Your task to perform on an android device: check data usage Image 0: 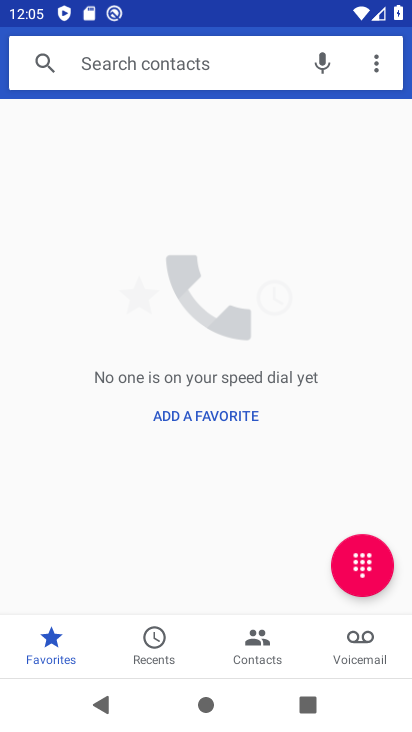
Step 0: press home button
Your task to perform on an android device: check data usage Image 1: 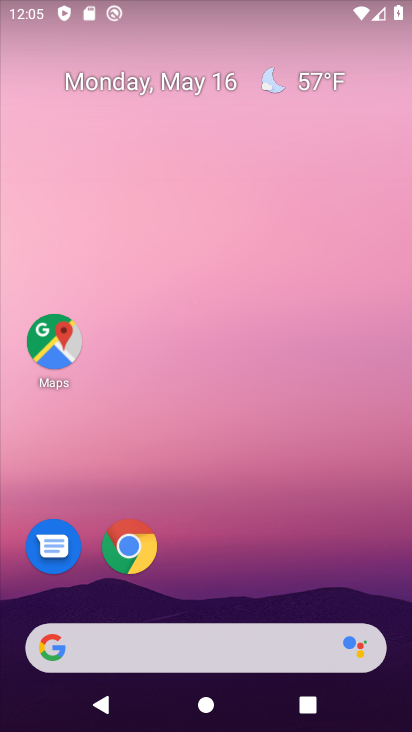
Step 1: drag from (272, 458) to (272, 129)
Your task to perform on an android device: check data usage Image 2: 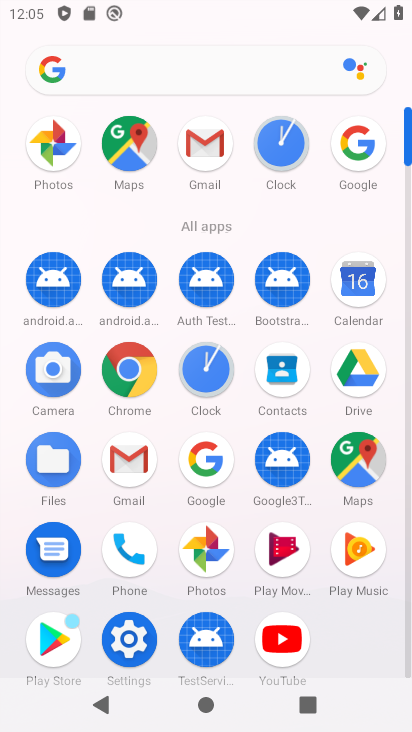
Step 2: click (146, 632)
Your task to perform on an android device: check data usage Image 3: 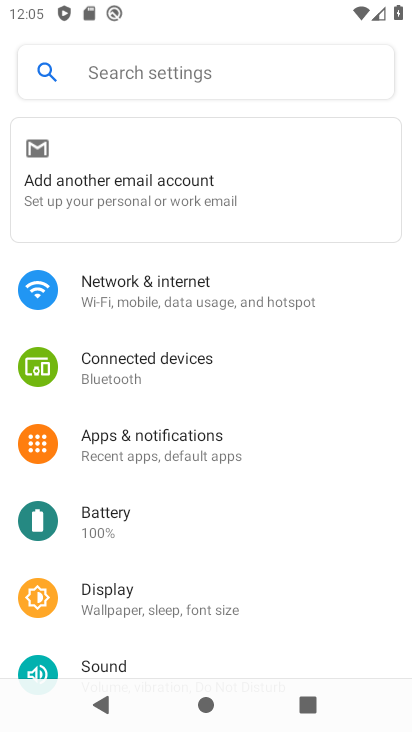
Step 3: click (190, 295)
Your task to perform on an android device: check data usage Image 4: 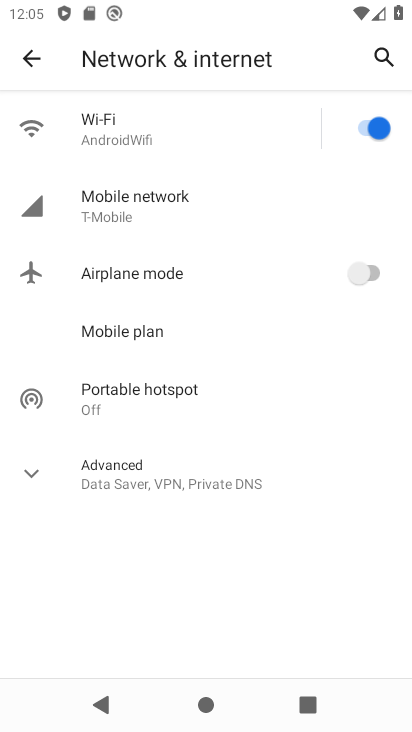
Step 4: click (207, 214)
Your task to perform on an android device: check data usage Image 5: 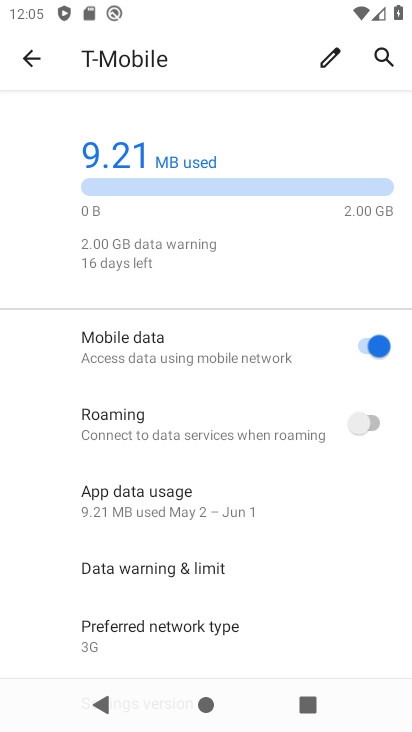
Step 5: click (204, 513)
Your task to perform on an android device: check data usage Image 6: 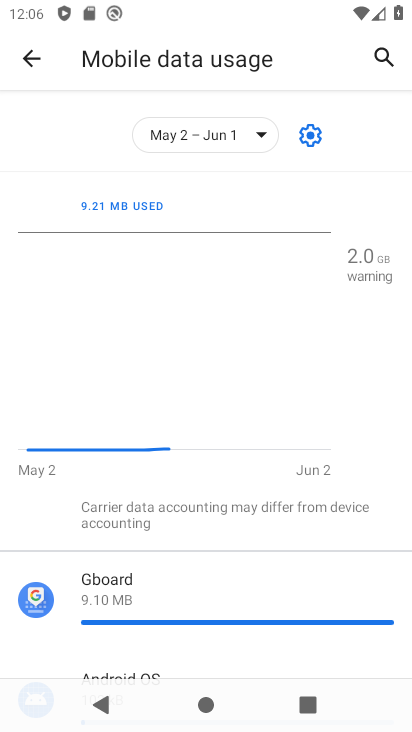
Step 6: task complete